Your task to perform on an android device: Go to Yahoo.com Image 0: 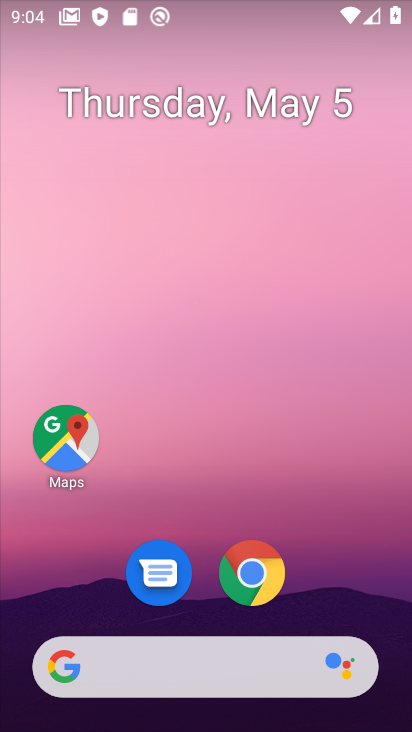
Step 0: click (251, 588)
Your task to perform on an android device: Go to Yahoo.com Image 1: 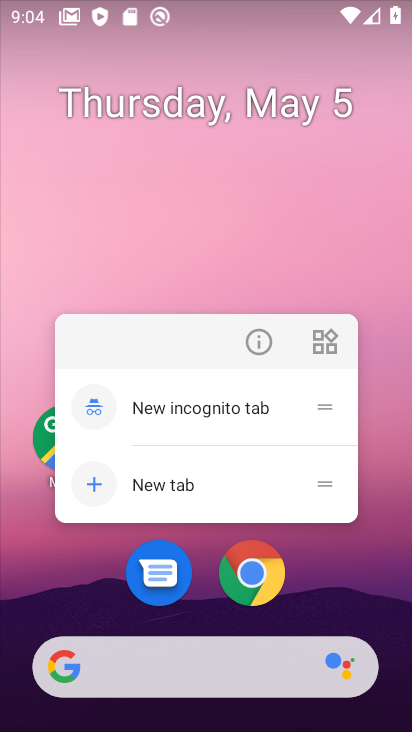
Step 1: click (259, 573)
Your task to perform on an android device: Go to Yahoo.com Image 2: 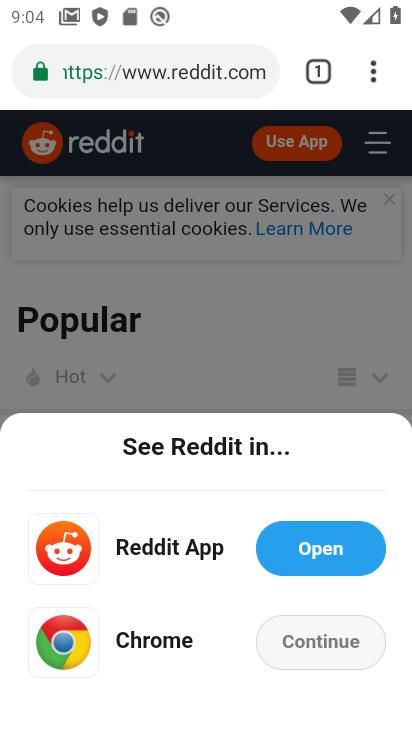
Step 2: click (308, 72)
Your task to perform on an android device: Go to Yahoo.com Image 3: 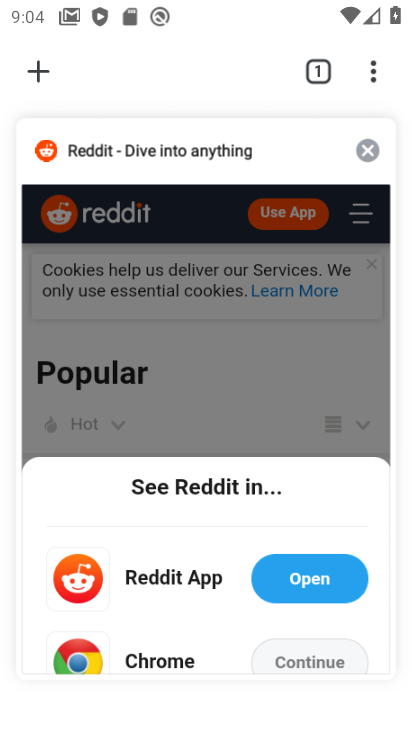
Step 3: click (44, 70)
Your task to perform on an android device: Go to Yahoo.com Image 4: 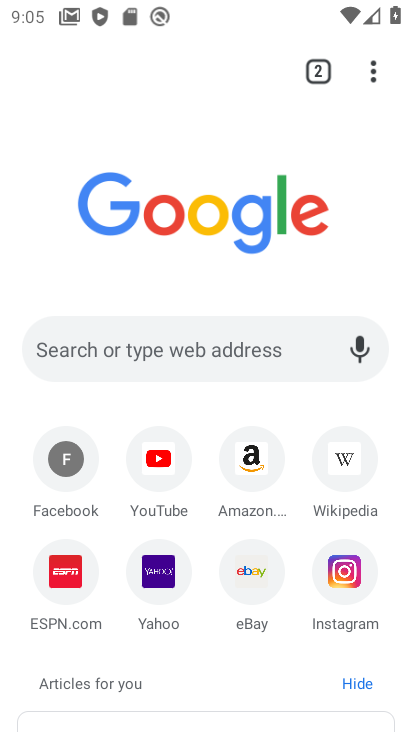
Step 4: click (164, 579)
Your task to perform on an android device: Go to Yahoo.com Image 5: 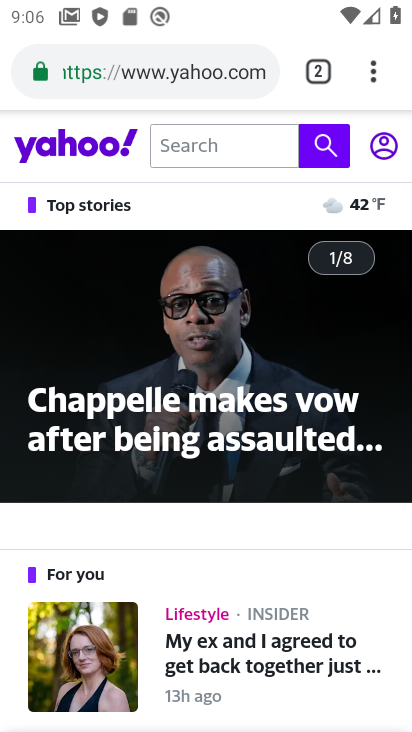
Step 5: task complete